Your task to perform on an android device: turn off location Image 0: 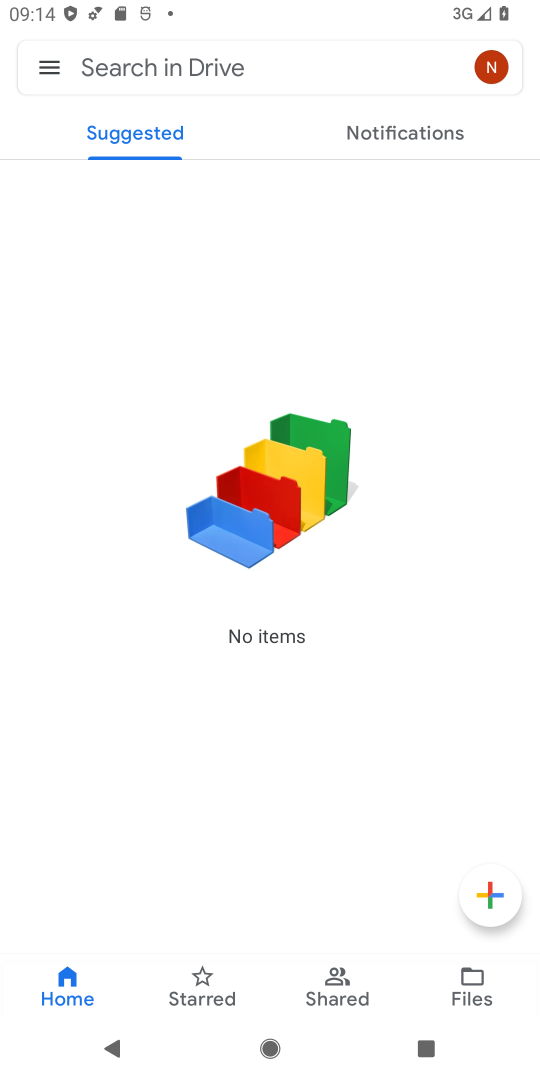
Step 0: press home button
Your task to perform on an android device: turn off location Image 1: 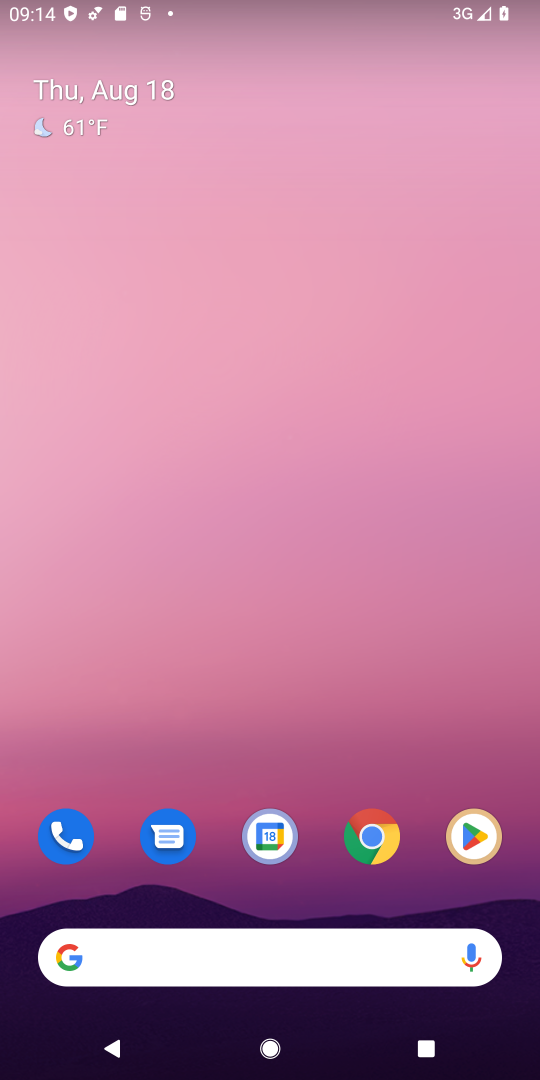
Step 1: drag from (385, 726) to (460, 7)
Your task to perform on an android device: turn off location Image 2: 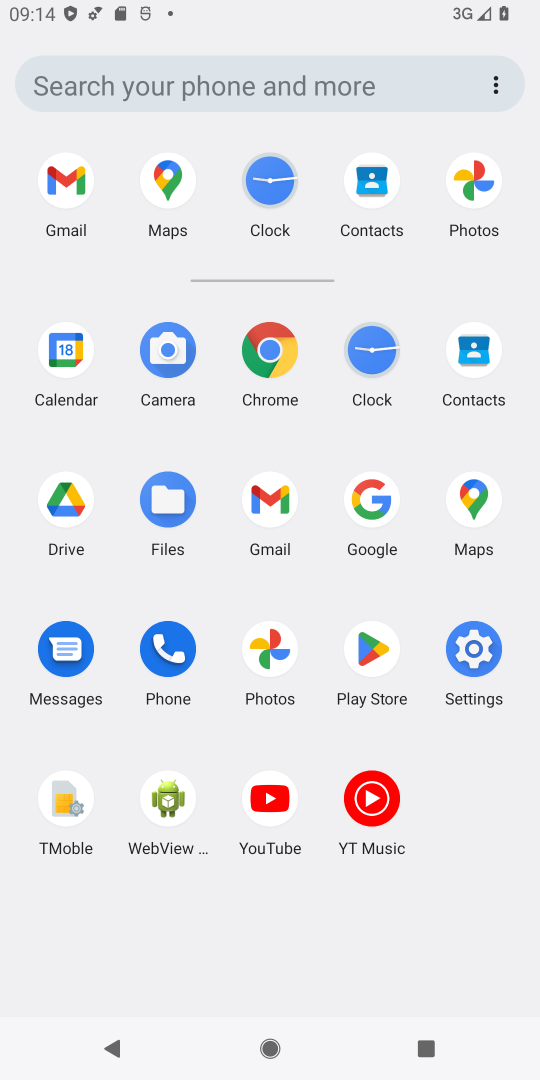
Step 2: click (476, 635)
Your task to perform on an android device: turn off location Image 3: 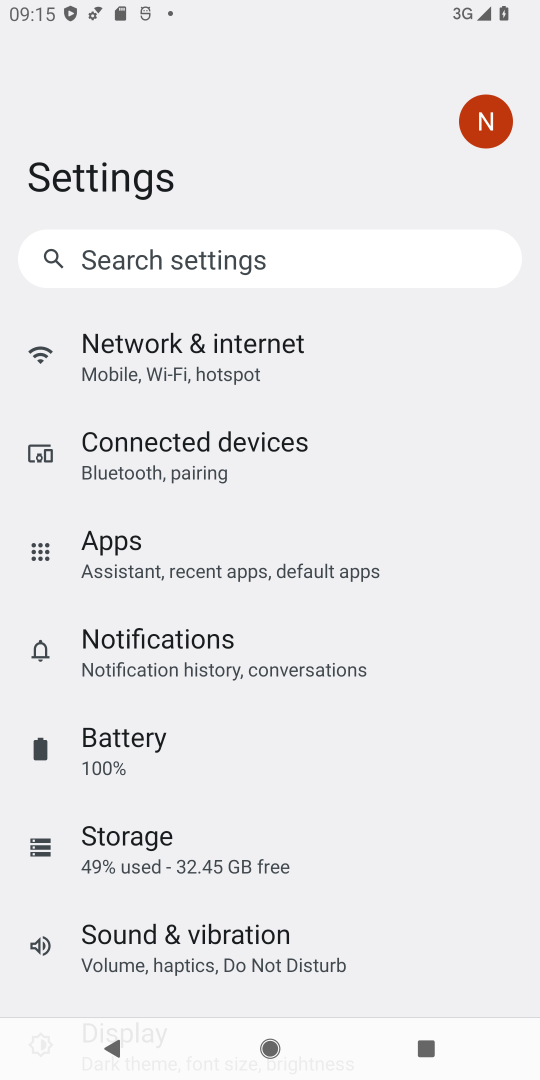
Step 3: drag from (345, 916) to (393, 307)
Your task to perform on an android device: turn off location Image 4: 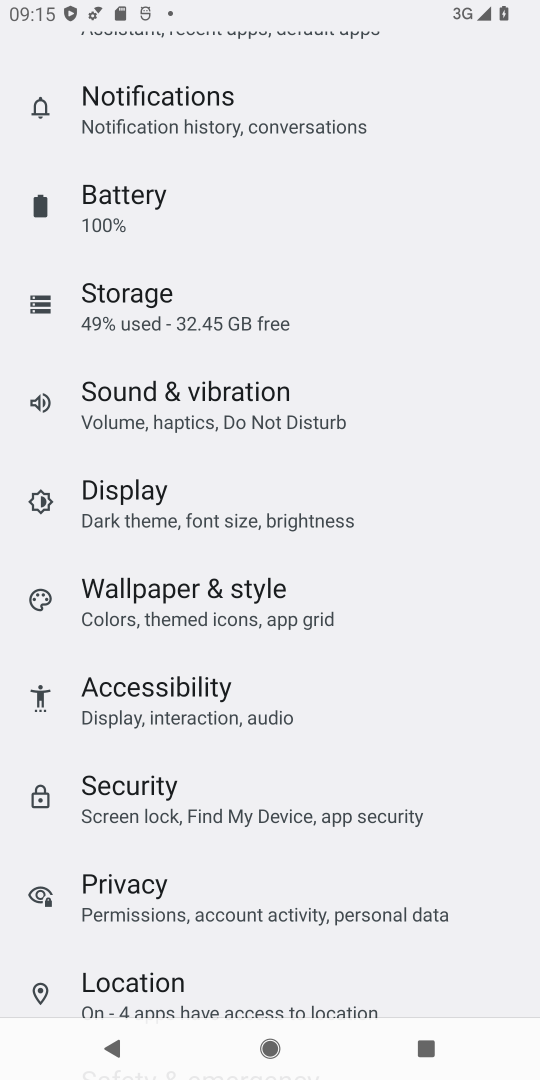
Step 4: drag from (285, 826) to (364, 340)
Your task to perform on an android device: turn off location Image 5: 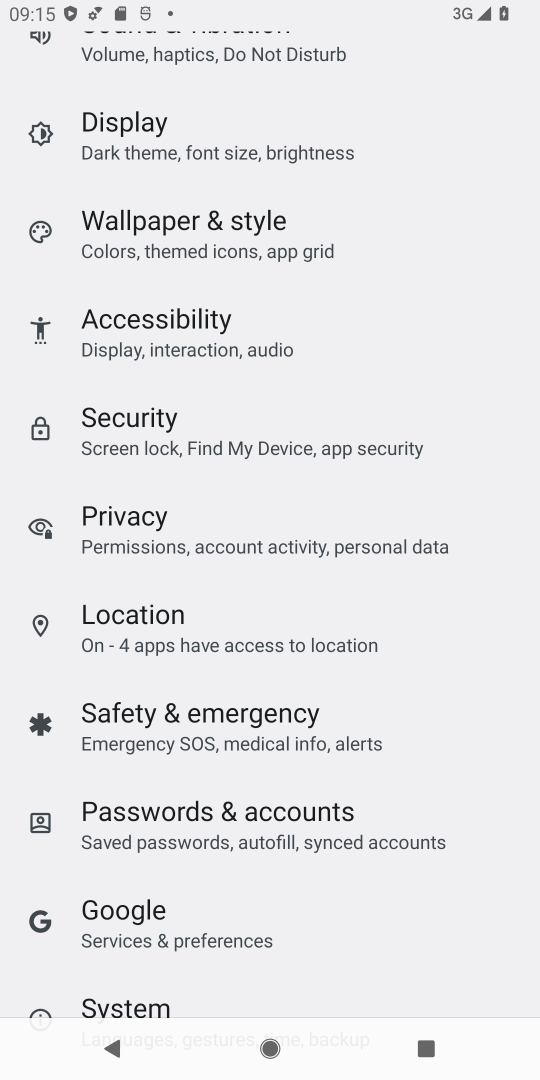
Step 5: click (191, 636)
Your task to perform on an android device: turn off location Image 6: 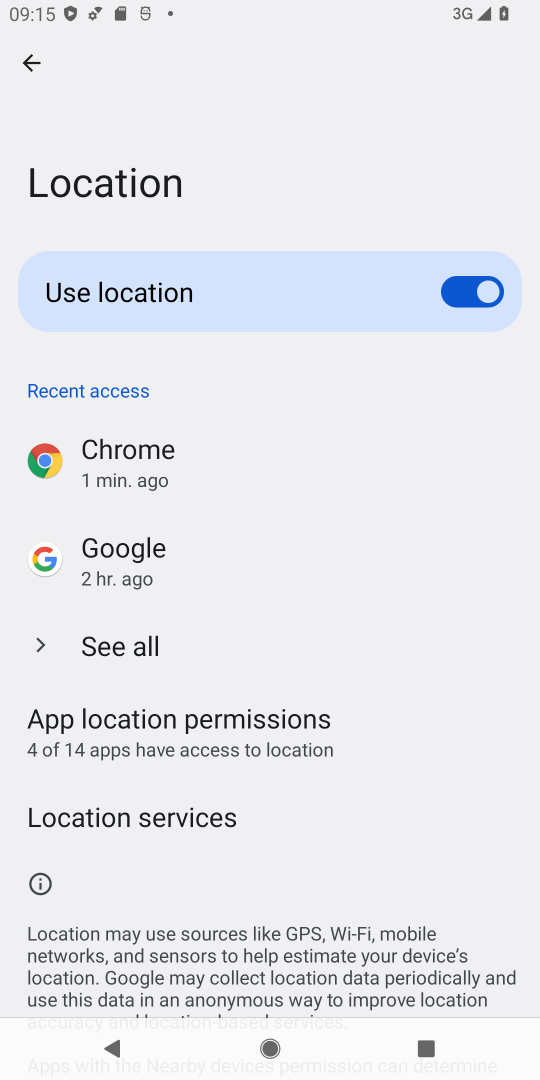
Step 6: click (479, 280)
Your task to perform on an android device: turn off location Image 7: 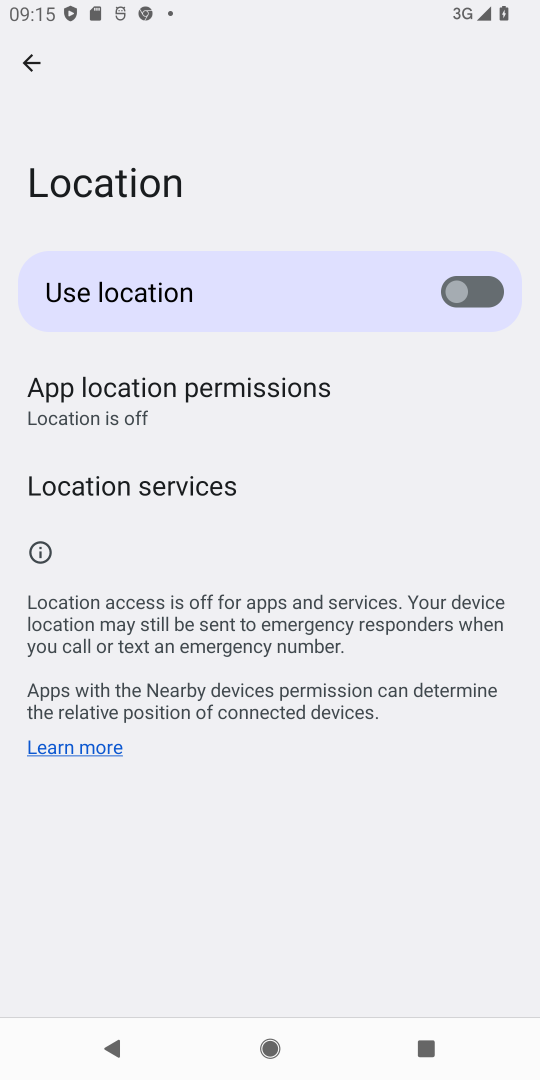
Step 7: task complete